Your task to perform on an android device: See recent photos Image 0: 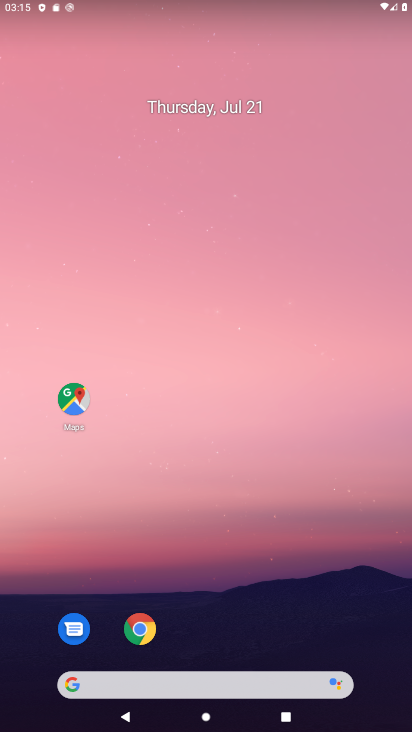
Step 0: press home button
Your task to perform on an android device: See recent photos Image 1: 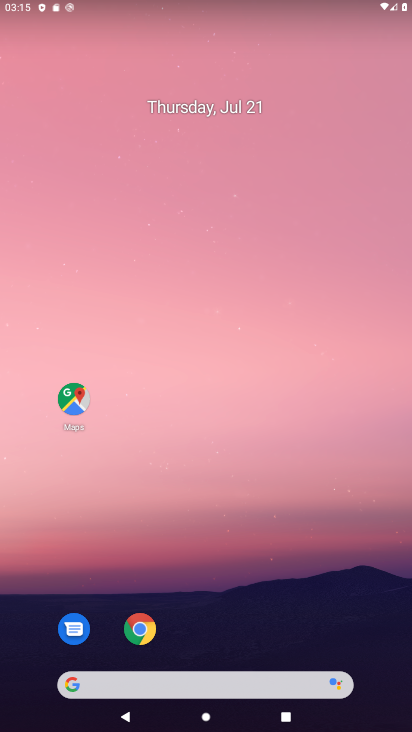
Step 1: drag from (364, 627) to (406, 116)
Your task to perform on an android device: See recent photos Image 2: 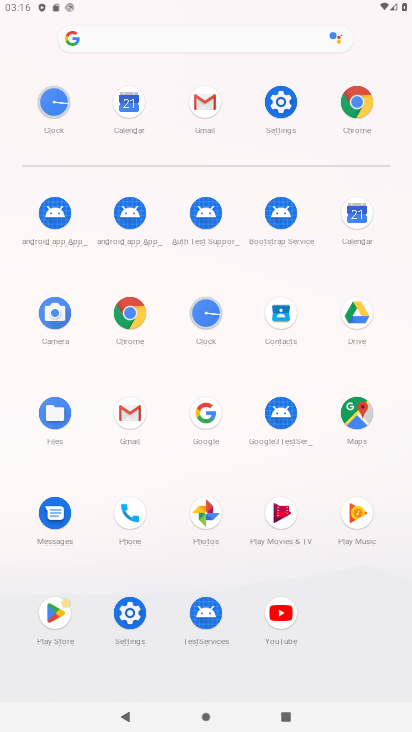
Step 2: click (226, 503)
Your task to perform on an android device: See recent photos Image 3: 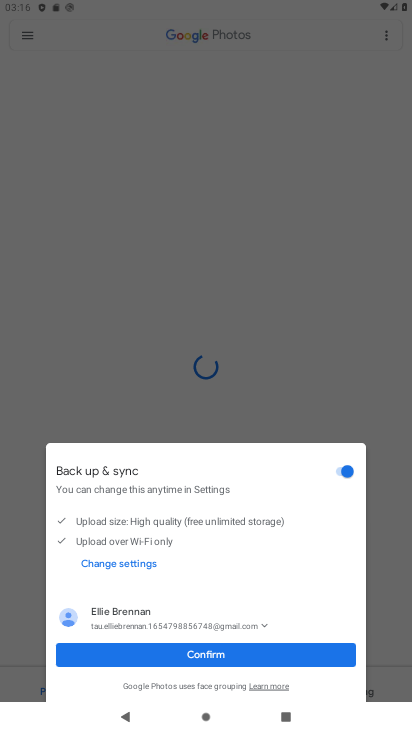
Step 3: click (180, 643)
Your task to perform on an android device: See recent photos Image 4: 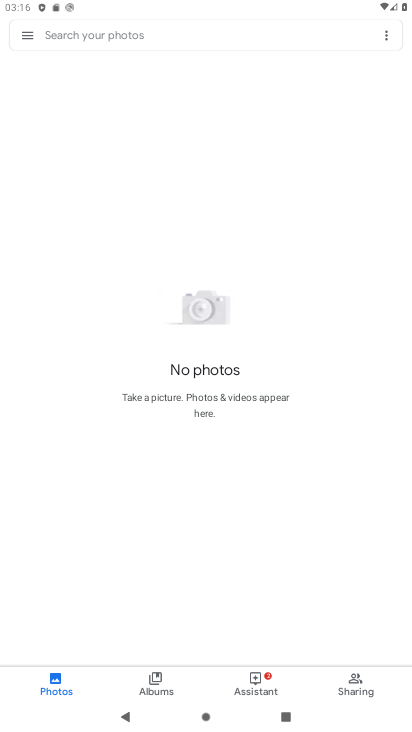
Step 4: task complete